Your task to perform on an android device: Search for sushi restaurants on Maps Image 0: 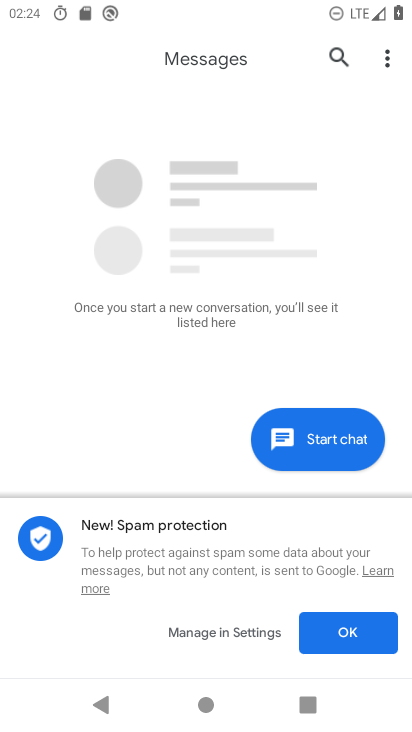
Step 0: press home button
Your task to perform on an android device: Search for sushi restaurants on Maps Image 1: 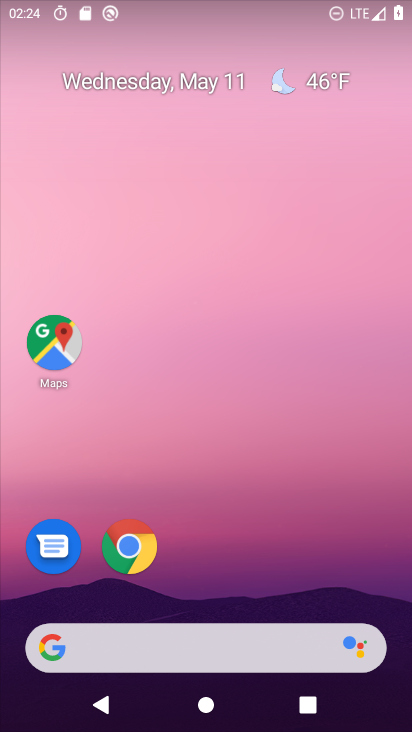
Step 1: drag from (301, 663) to (289, 247)
Your task to perform on an android device: Search for sushi restaurants on Maps Image 2: 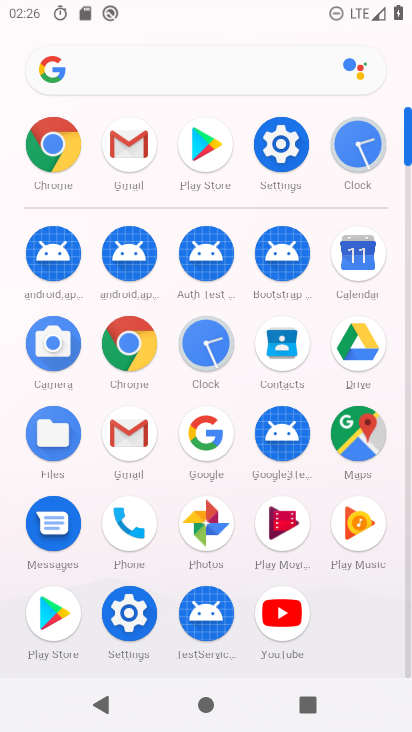
Step 2: click (350, 433)
Your task to perform on an android device: Search for sushi restaurants on Maps Image 3: 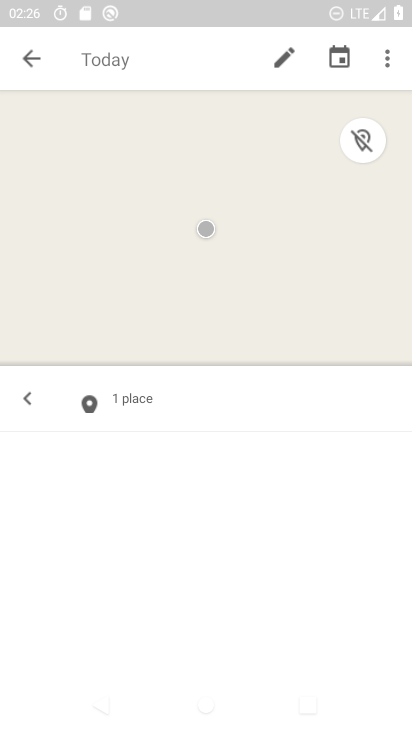
Step 3: click (27, 58)
Your task to perform on an android device: Search for sushi restaurants on Maps Image 4: 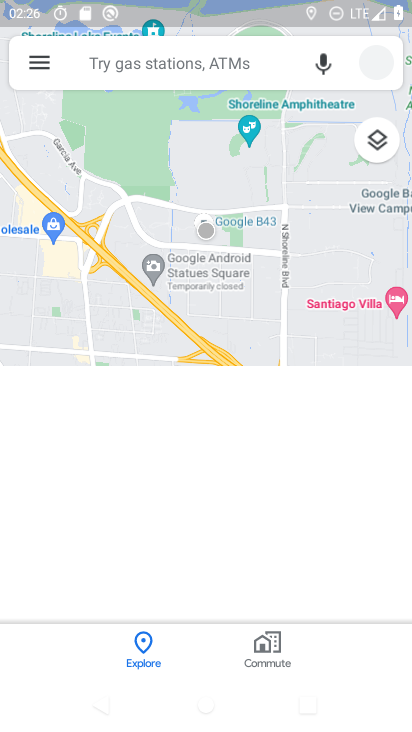
Step 4: click (169, 59)
Your task to perform on an android device: Search for sushi restaurants on Maps Image 5: 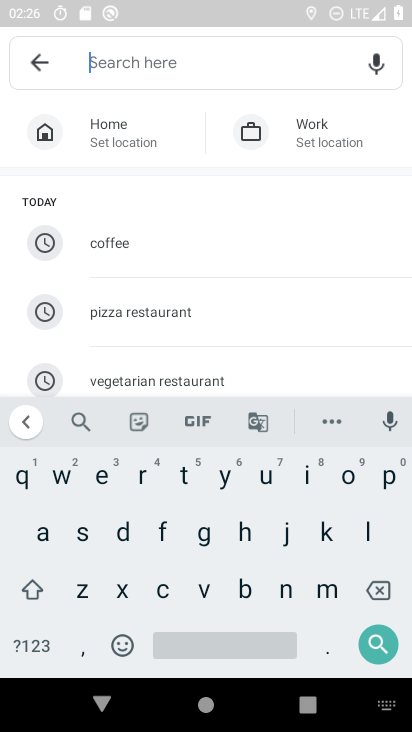
Step 5: click (84, 531)
Your task to perform on an android device: Search for sushi restaurants on Maps Image 6: 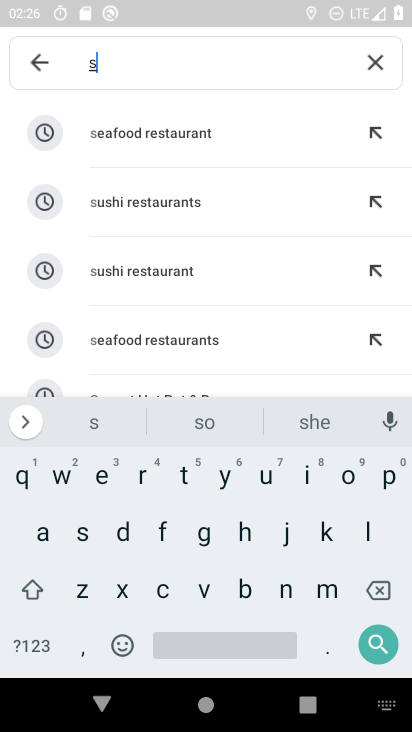
Step 6: click (160, 199)
Your task to perform on an android device: Search for sushi restaurants on Maps Image 7: 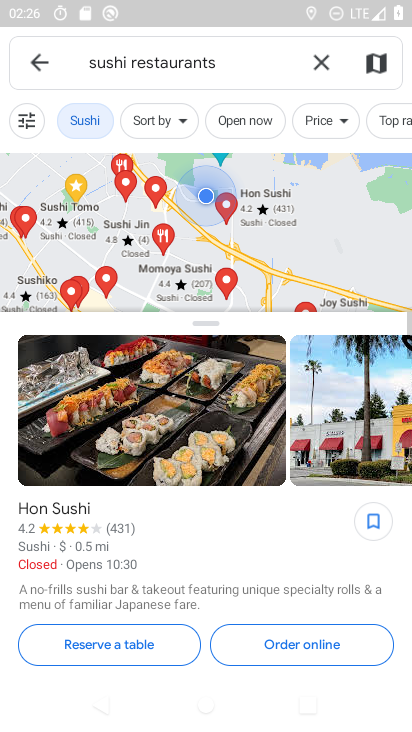
Step 7: task complete